Your task to perform on an android device: Open maps Image 0: 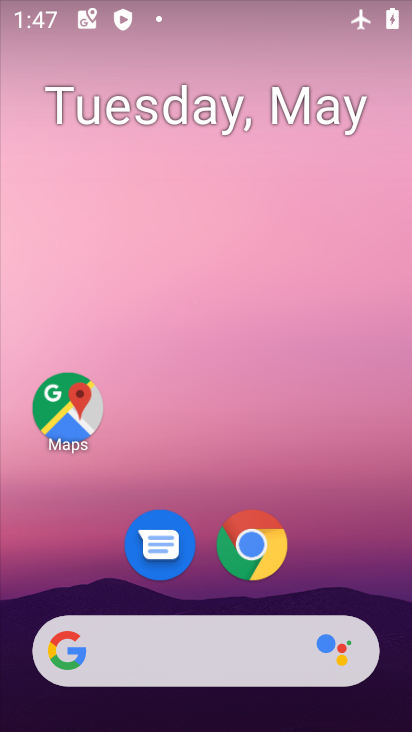
Step 0: click (69, 408)
Your task to perform on an android device: Open maps Image 1: 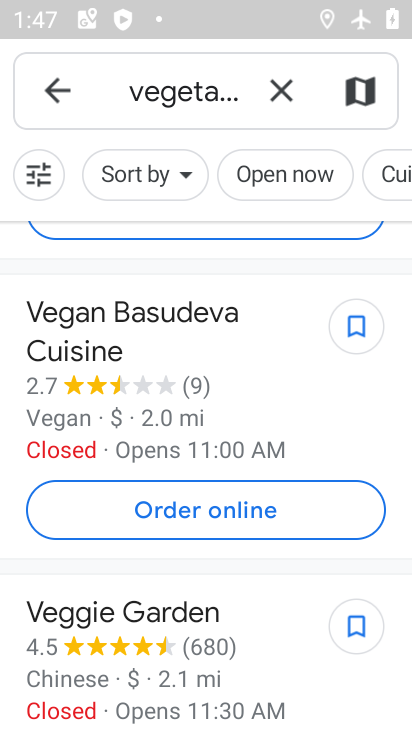
Step 1: click (284, 84)
Your task to perform on an android device: Open maps Image 2: 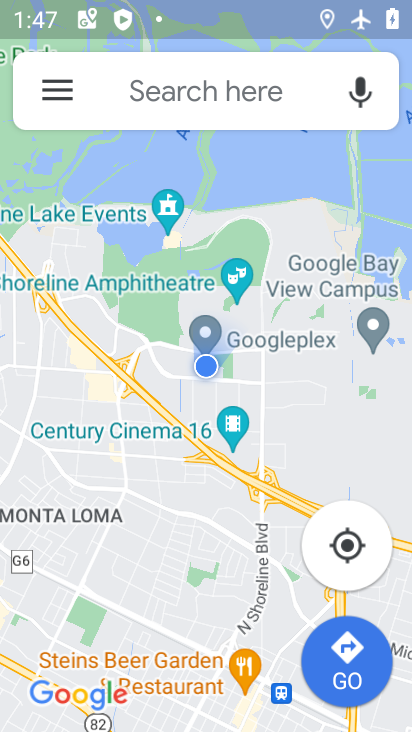
Step 2: task complete